Your task to perform on an android device: Go to Wikipedia Image 0: 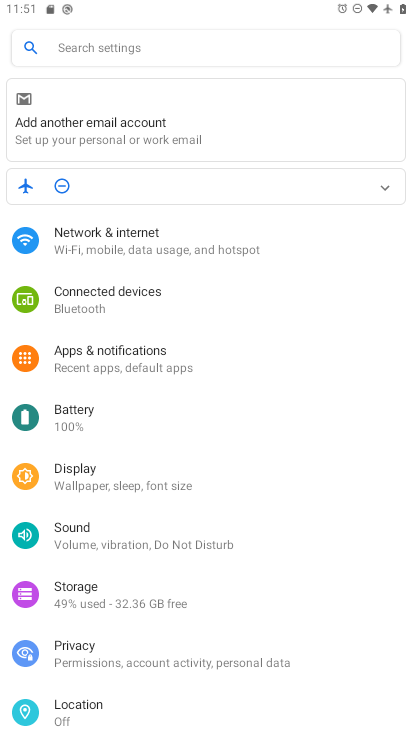
Step 0: press home button
Your task to perform on an android device: Go to Wikipedia Image 1: 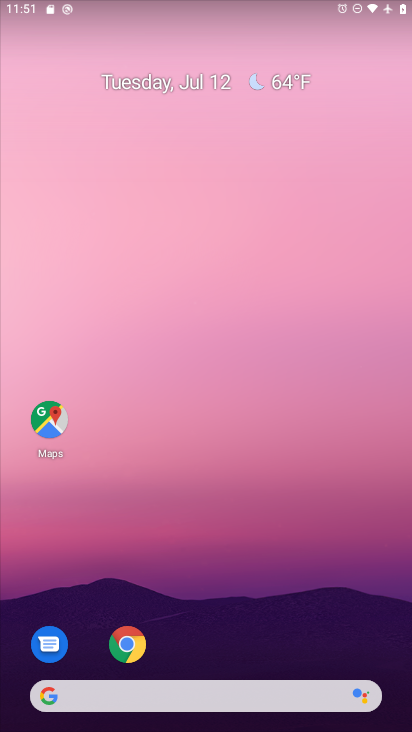
Step 1: drag from (275, 632) to (275, 187)
Your task to perform on an android device: Go to Wikipedia Image 2: 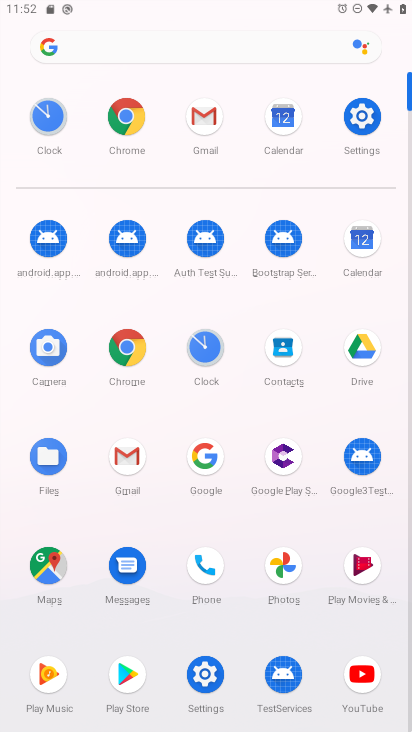
Step 2: click (207, 60)
Your task to perform on an android device: Go to Wikipedia Image 3: 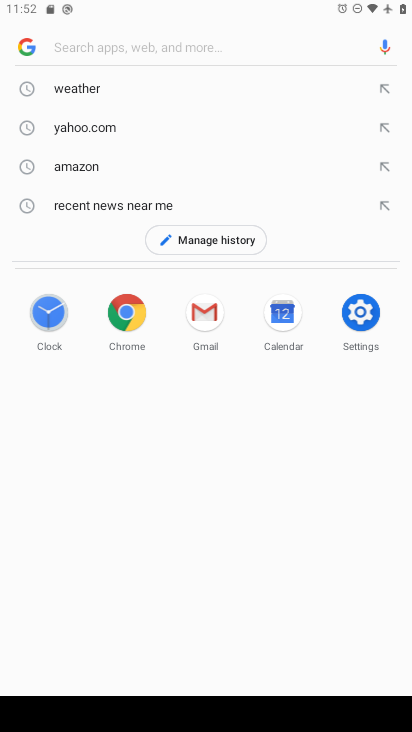
Step 3: type "WIKIPEDIA"
Your task to perform on an android device: Go to Wikipedia Image 4: 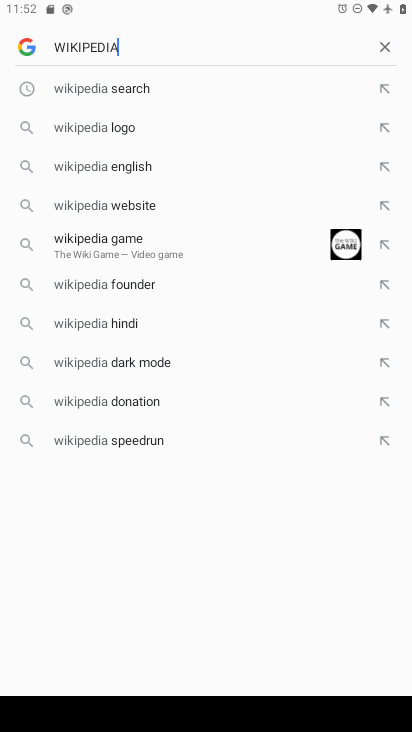
Step 4: click (165, 91)
Your task to perform on an android device: Go to Wikipedia Image 5: 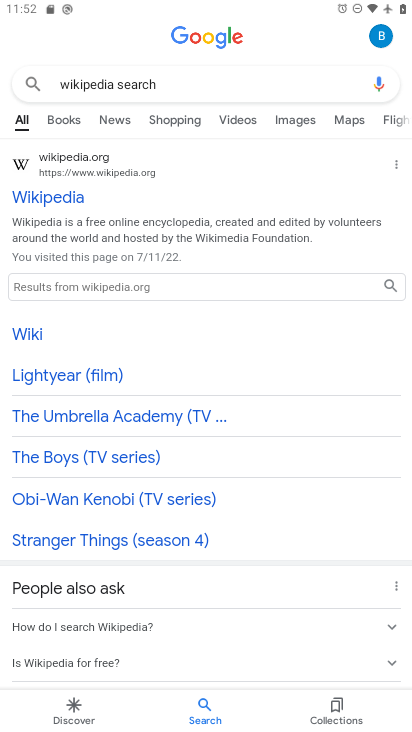
Step 5: click (58, 202)
Your task to perform on an android device: Go to Wikipedia Image 6: 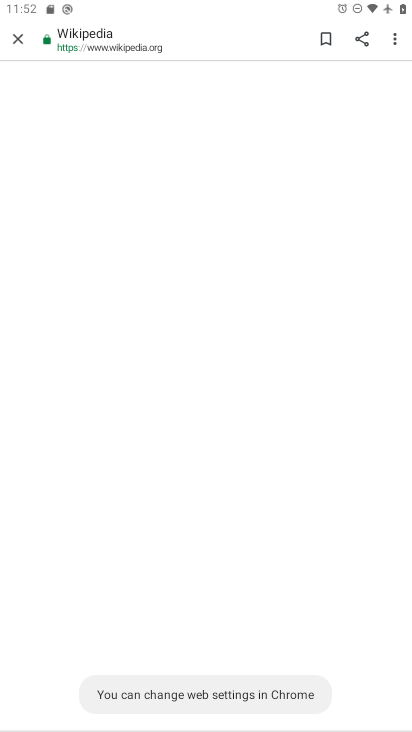
Step 6: task complete